Your task to perform on an android device: Go to Reddit.com Image 0: 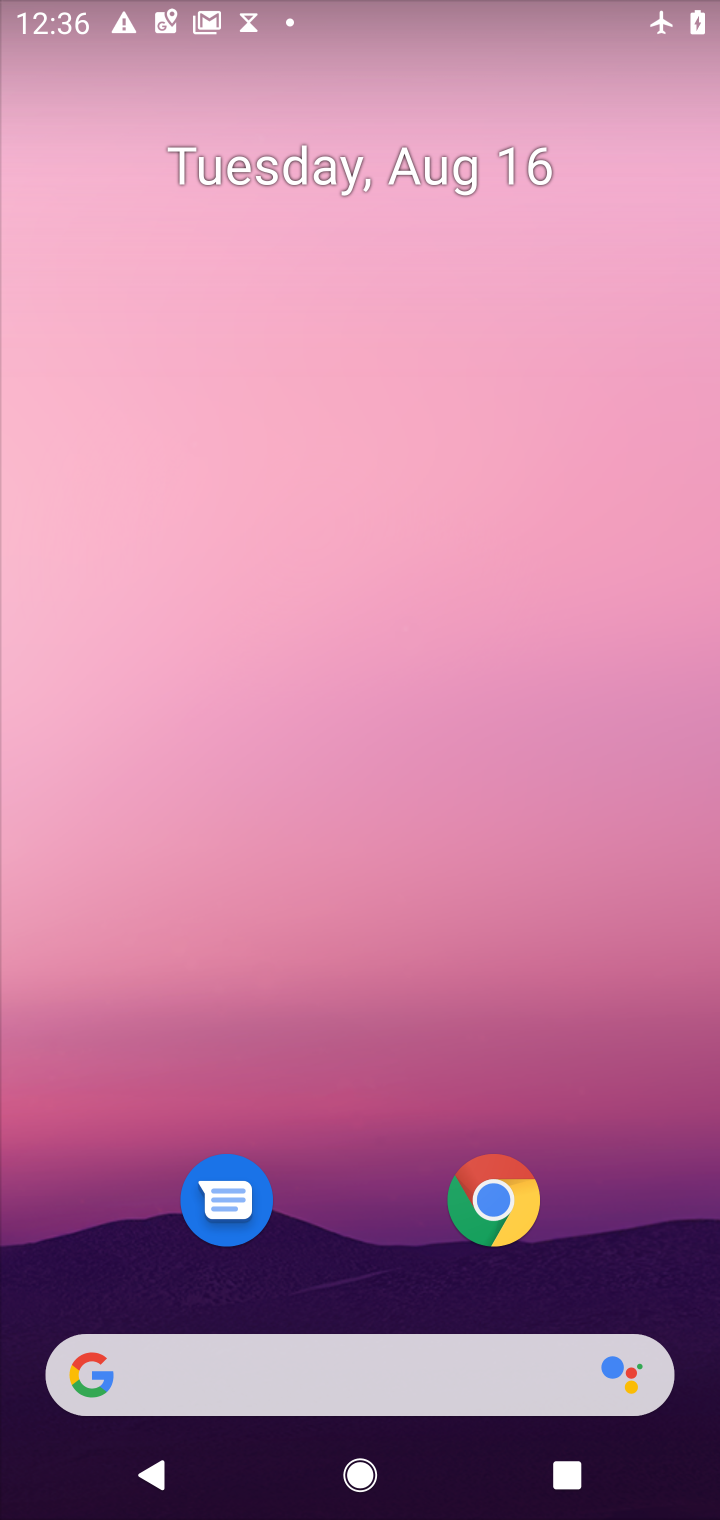
Step 0: click (467, 1181)
Your task to perform on an android device: Go to Reddit.com Image 1: 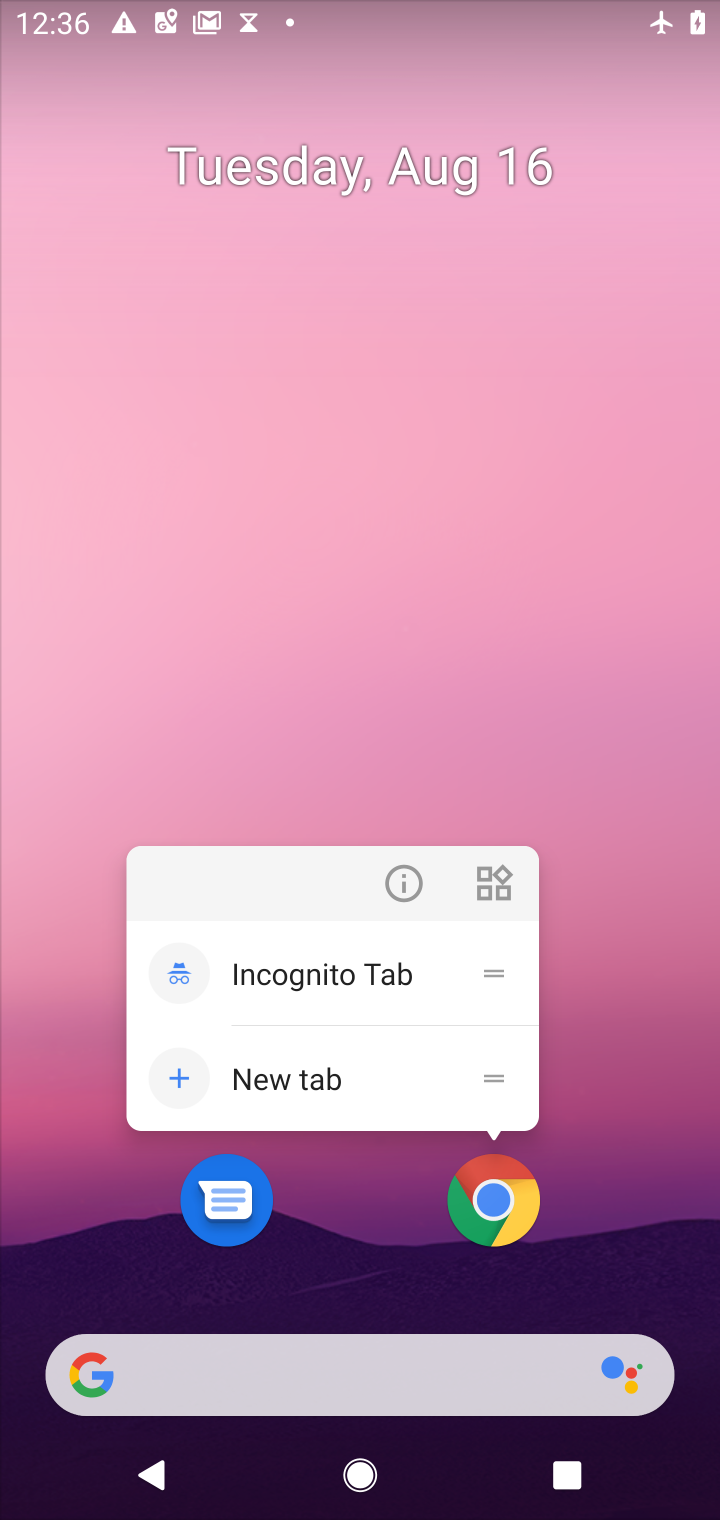
Step 1: click (502, 1194)
Your task to perform on an android device: Go to Reddit.com Image 2: 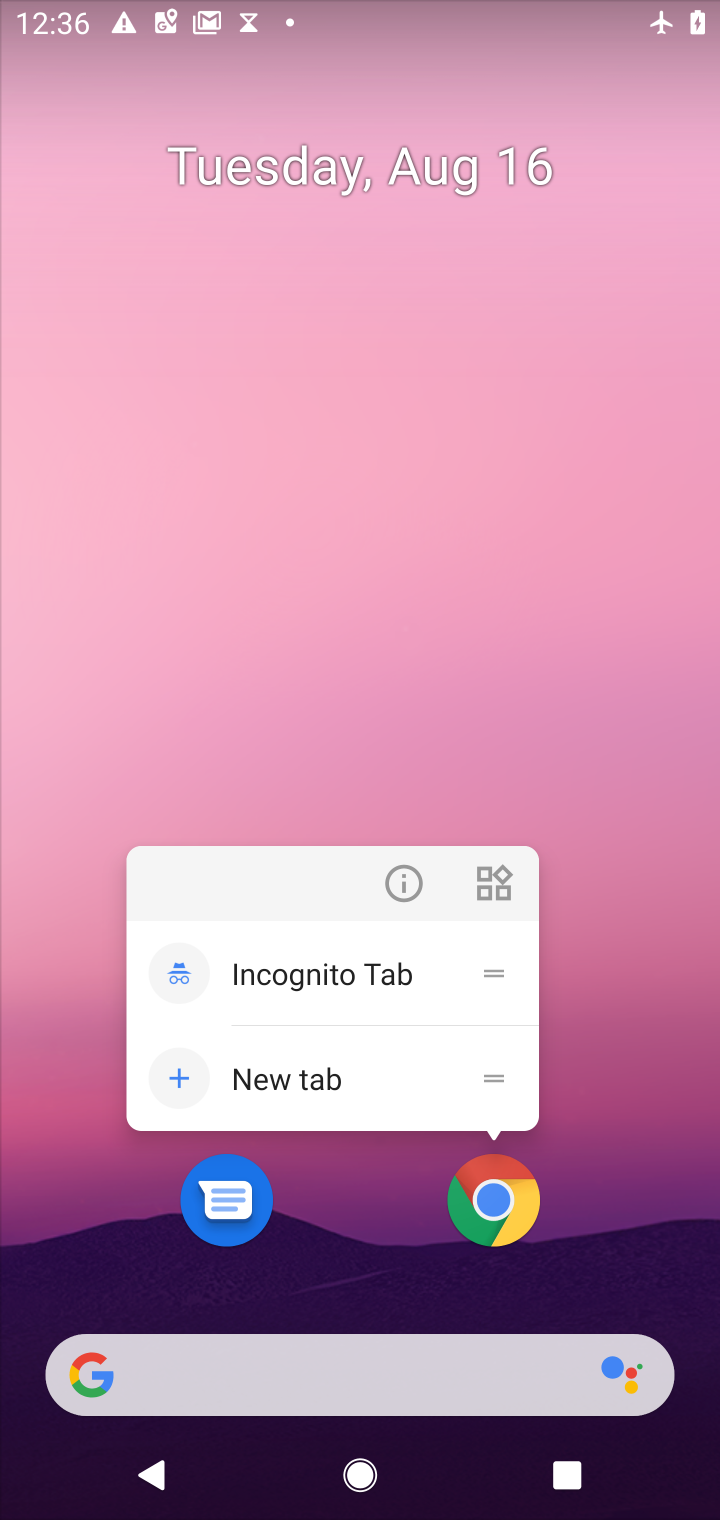
Step 2: click (502, 1194)
Your task to perform on an android device: Go to Reddit.com Image 3: 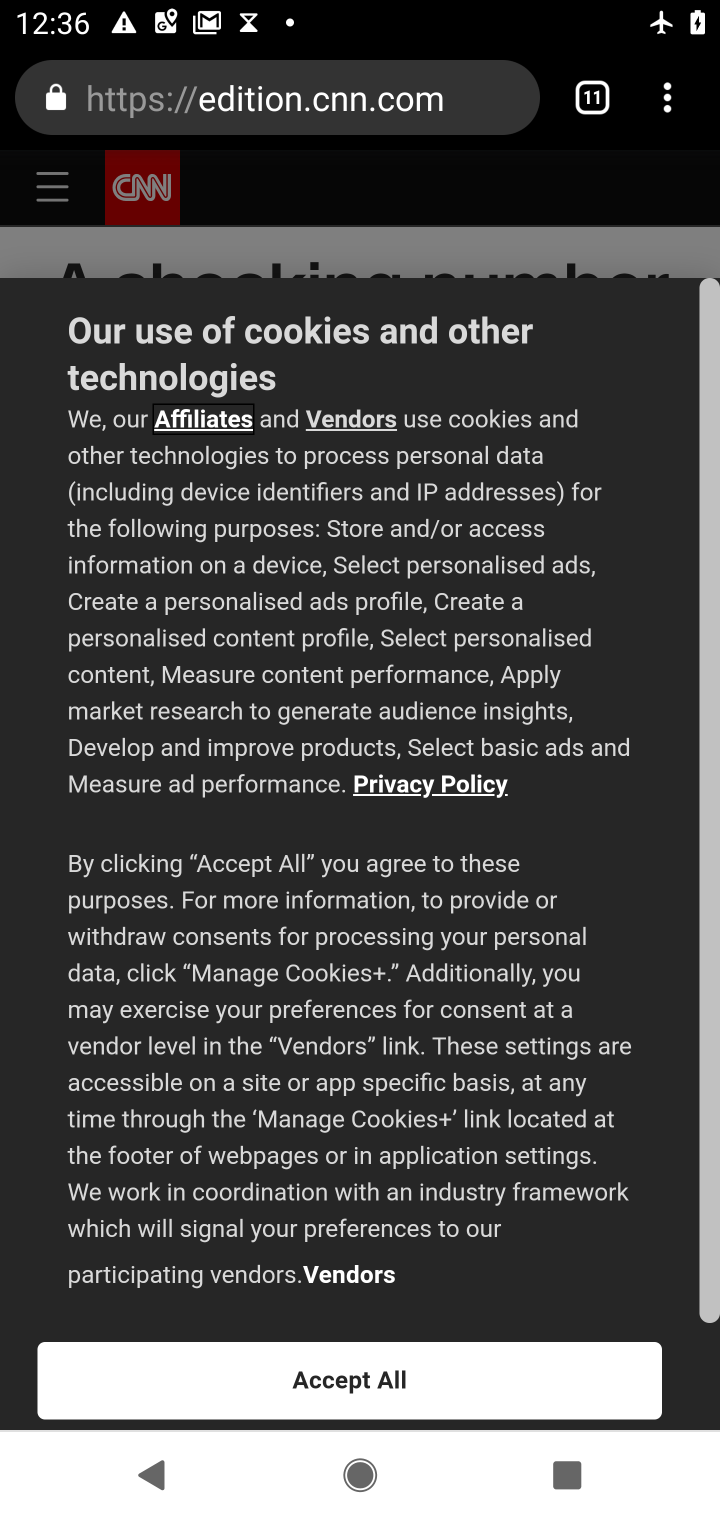
Step 3: click (586, 108)
Your task to perform on an android device: Go to Reddit.com Image 4: 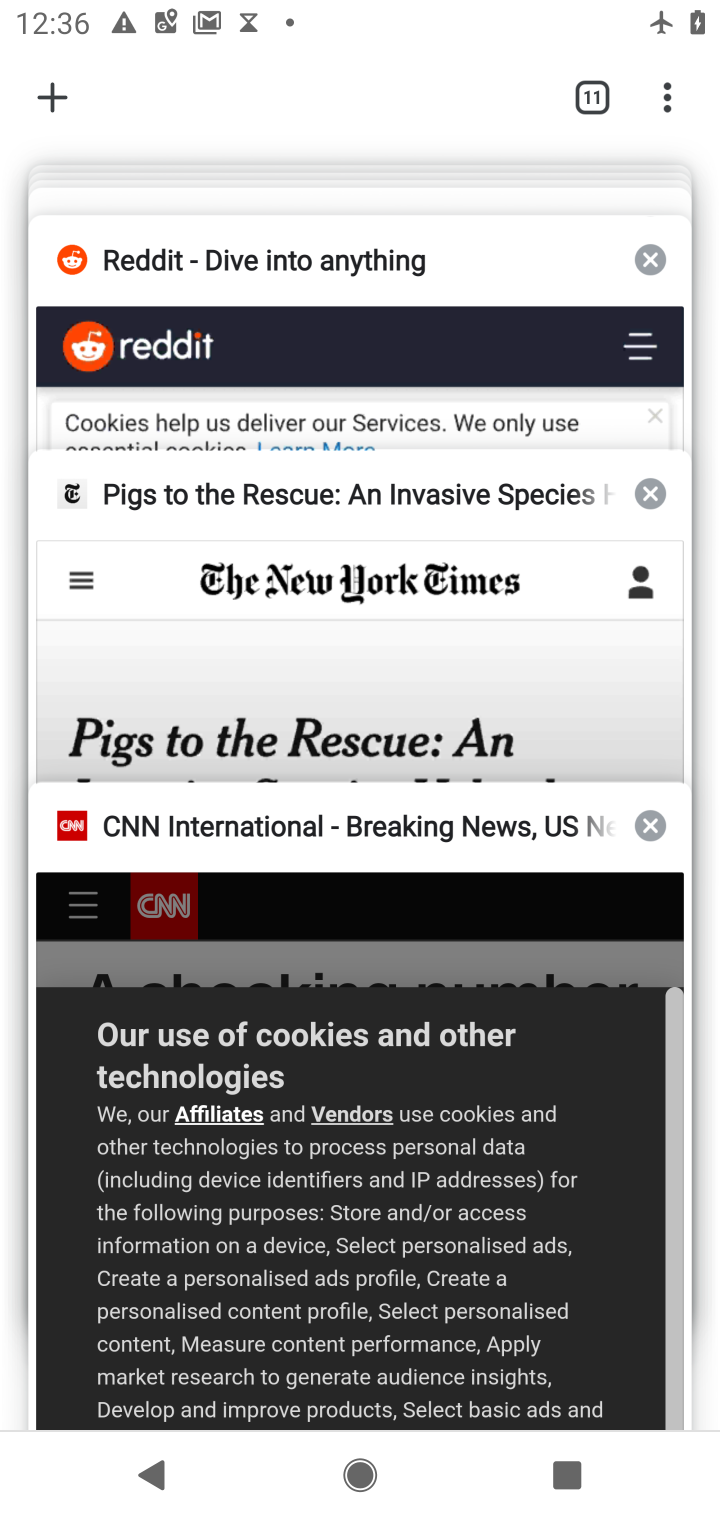
Step 4: click (50, 85)
Your task to perform on an android device: Go to Reddit.com Image 5: 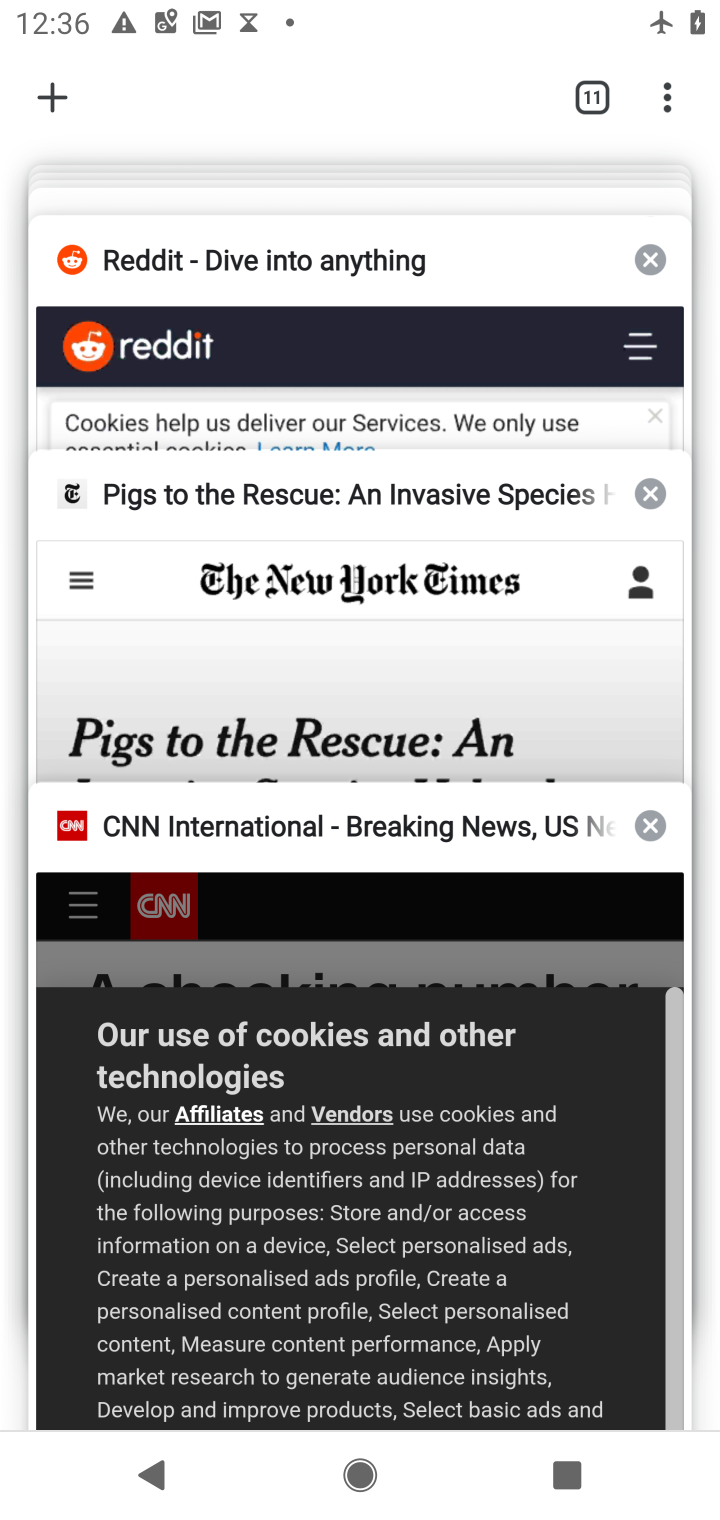
Step 5: click (48, 95)
Your task to perform on an android device: Go to Reddit.com Image 6: 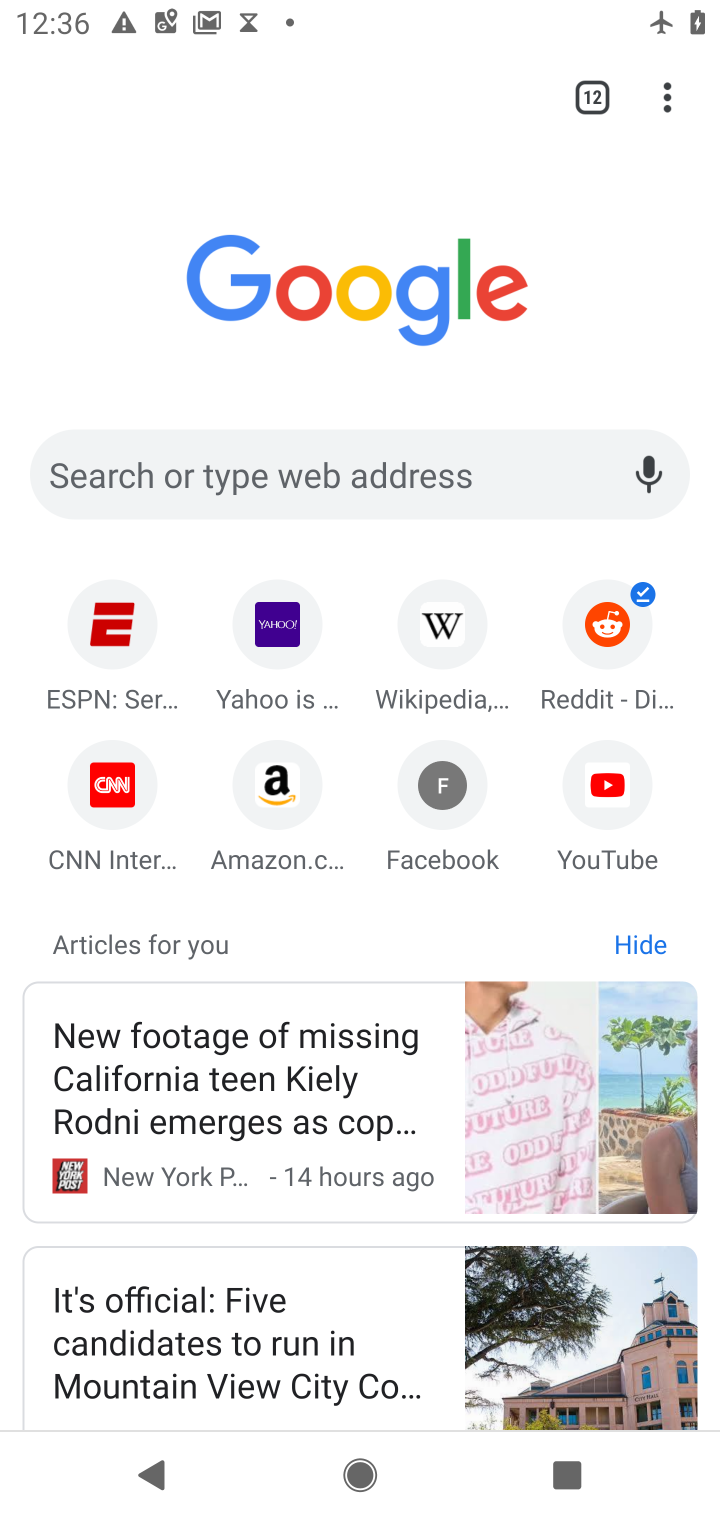
Step 6: click (211, 461)
Your task to perform on an android device: Go to Reddit.com Image 7: 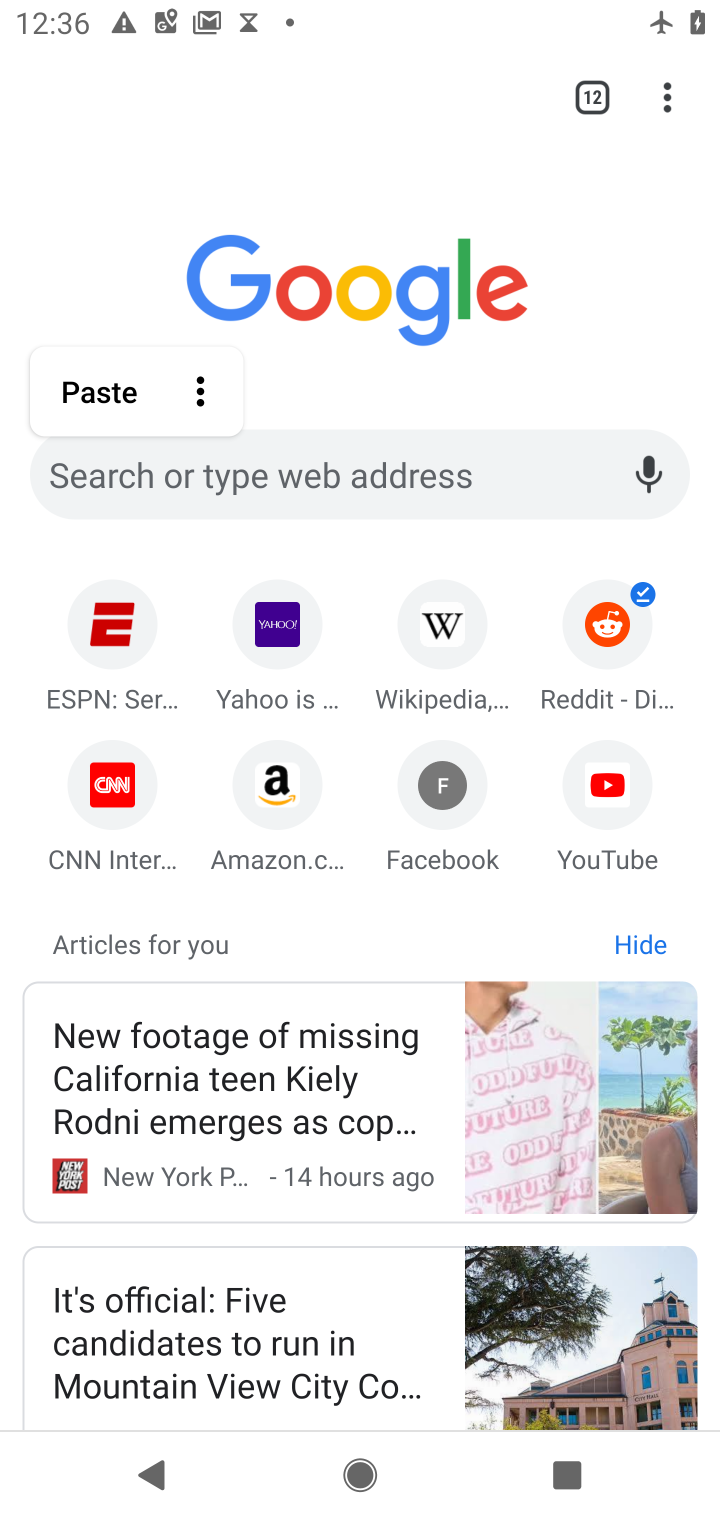
Step 7: type "Reddit.com"
Your task to perform on an android device: Go to Reddit.com Image 8: 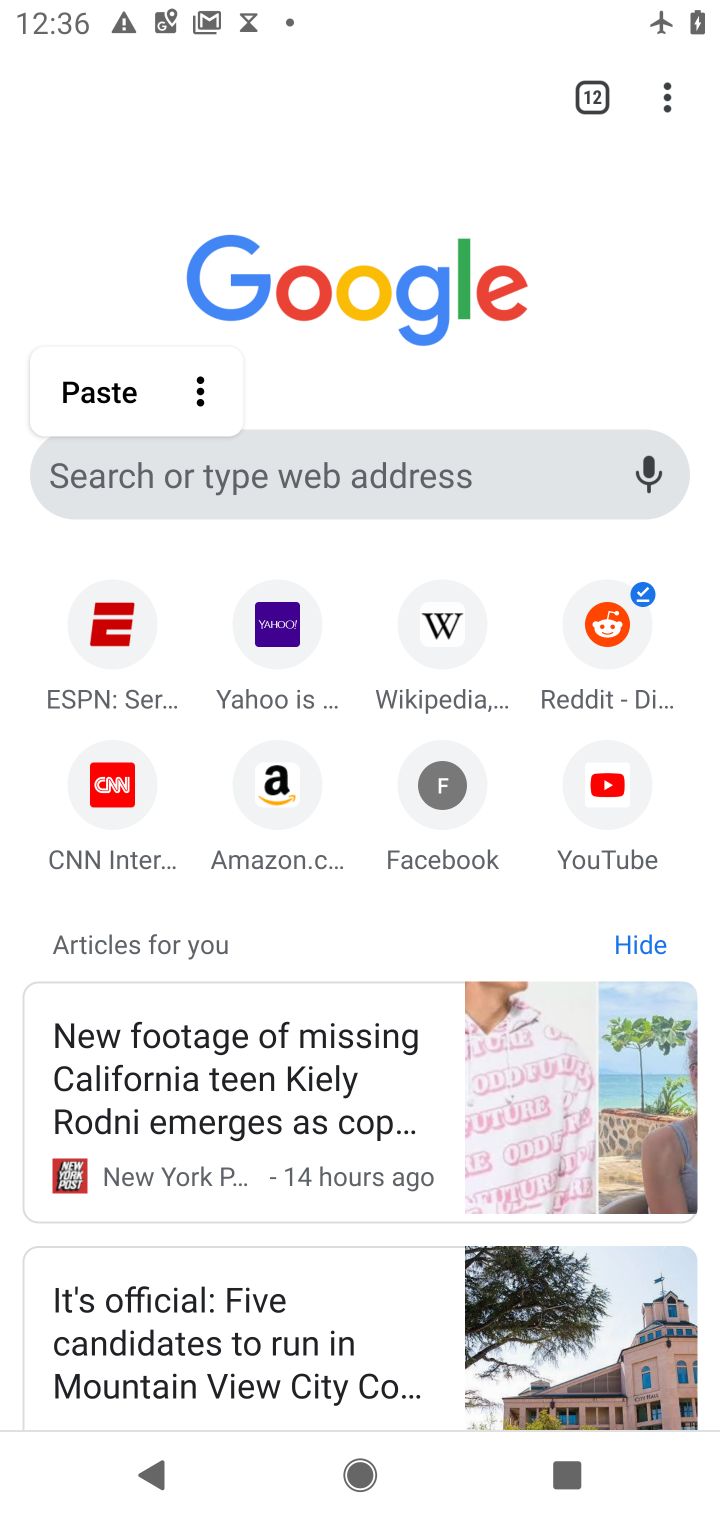
Step 8: type ""
Your task to perform on an android device: Go to Reddit.com Image 9: 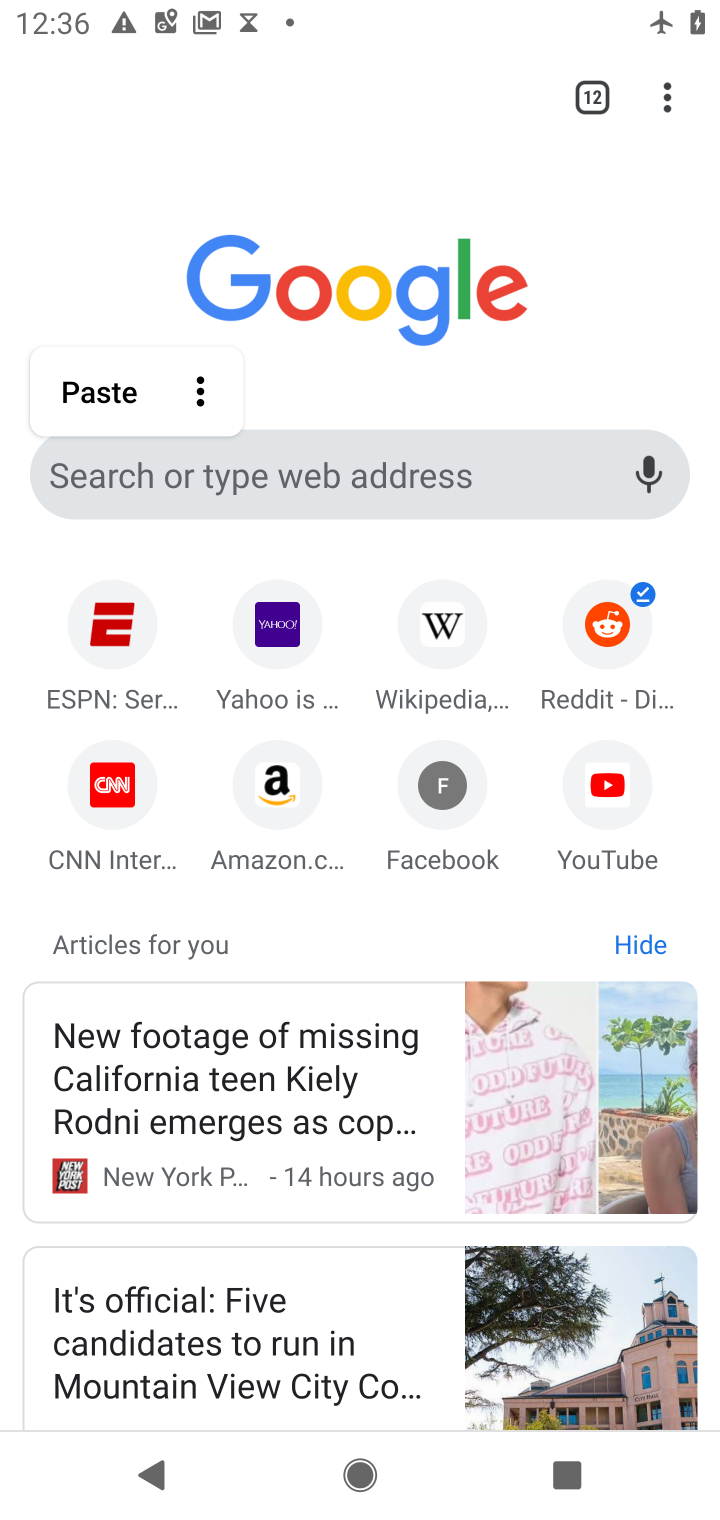
Step 9: click (351, 490)
Your task to perform on an android device: Go to Reddit.com Image 10: 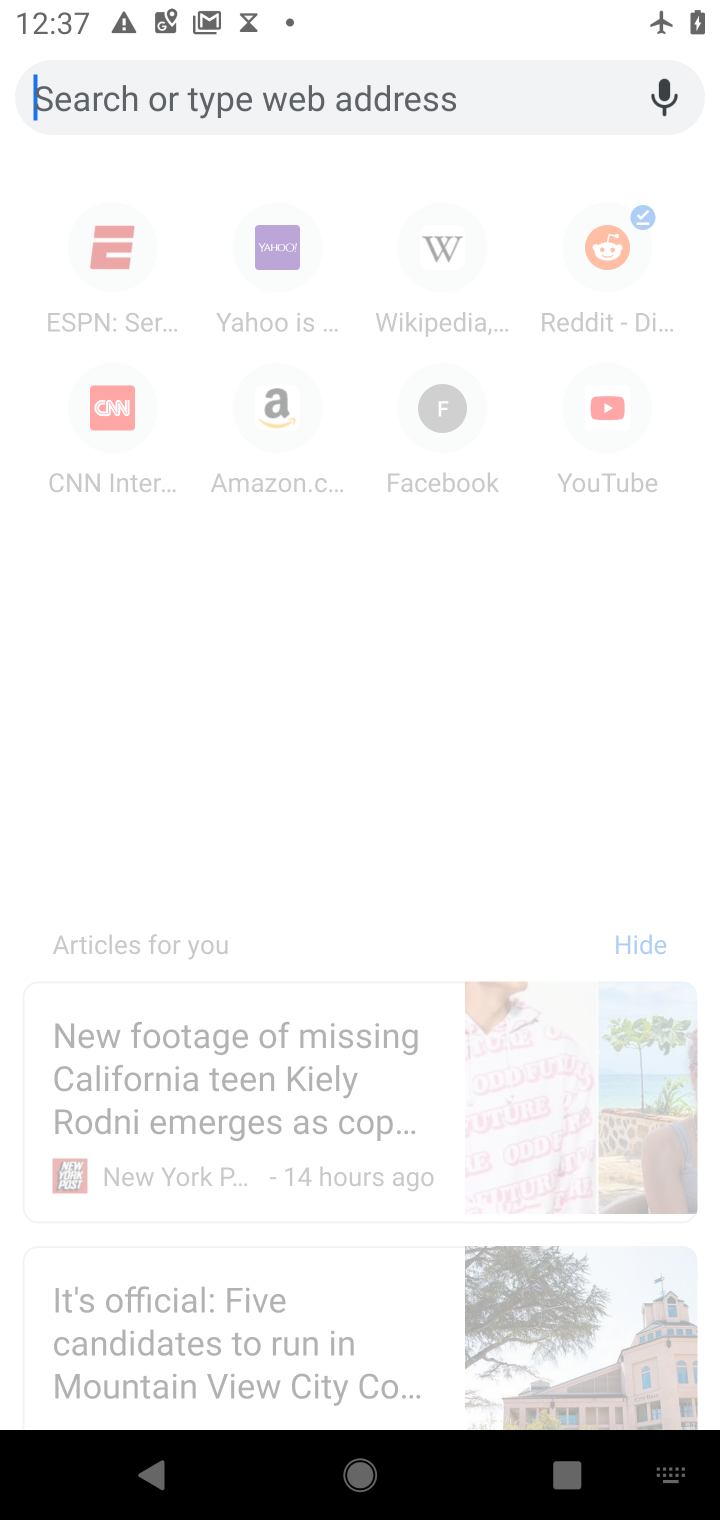
Step 10: type "Reddit.com"
Your task to perform on an android device: Go to Reddit.com Image 11: 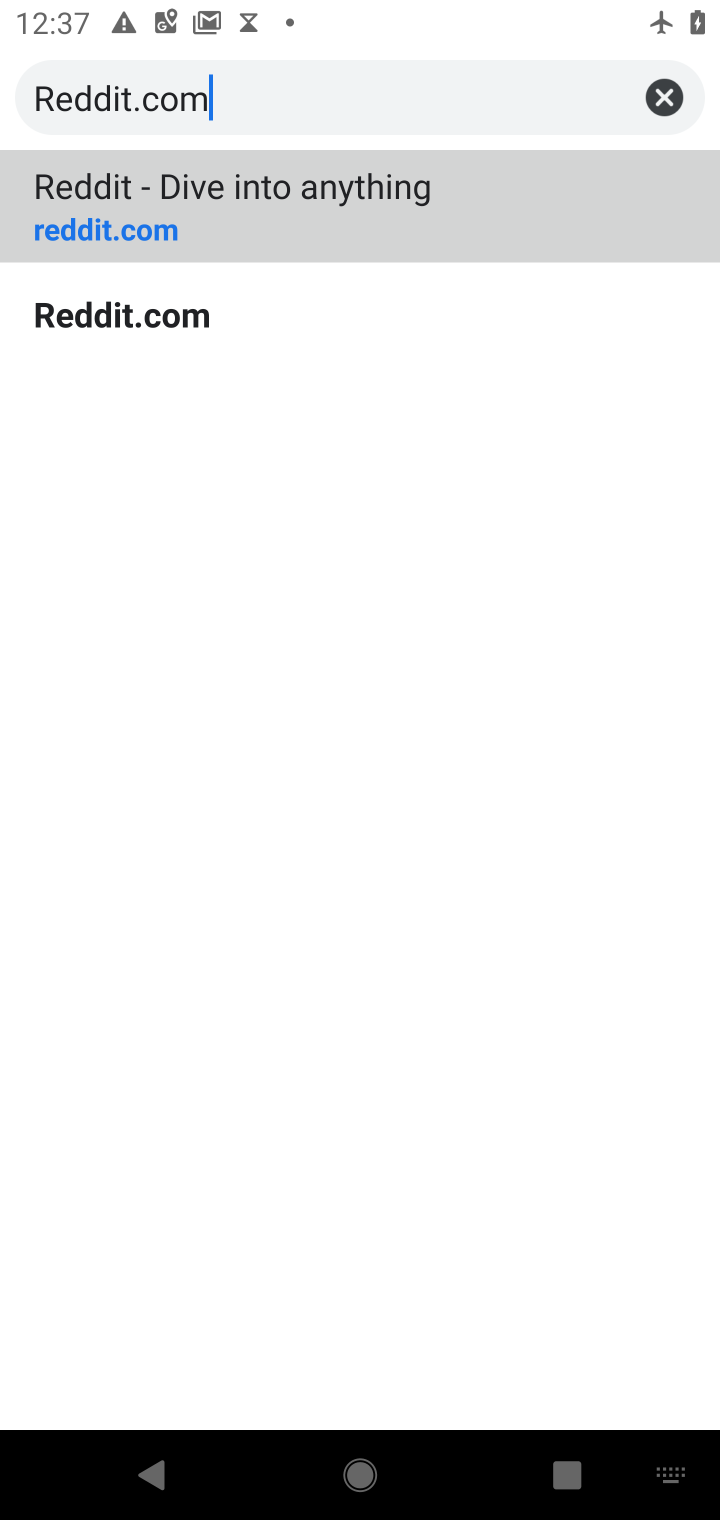
Step 11: type ""
Your task to perform on an android device: Go to Reddit.com Image 12: 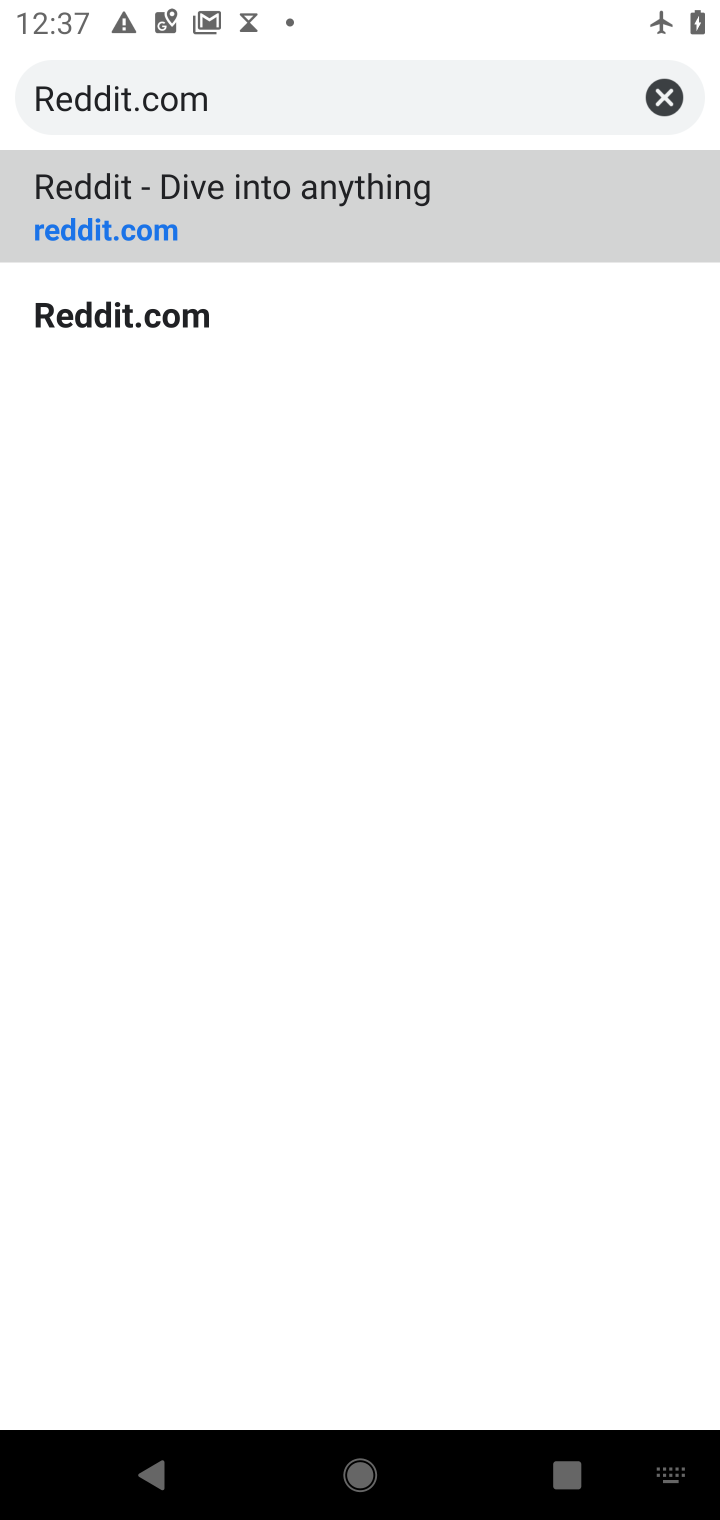
Step 12: click (237, 202)
Your task to perform on an android device: Go to Reddit.com Image 13: 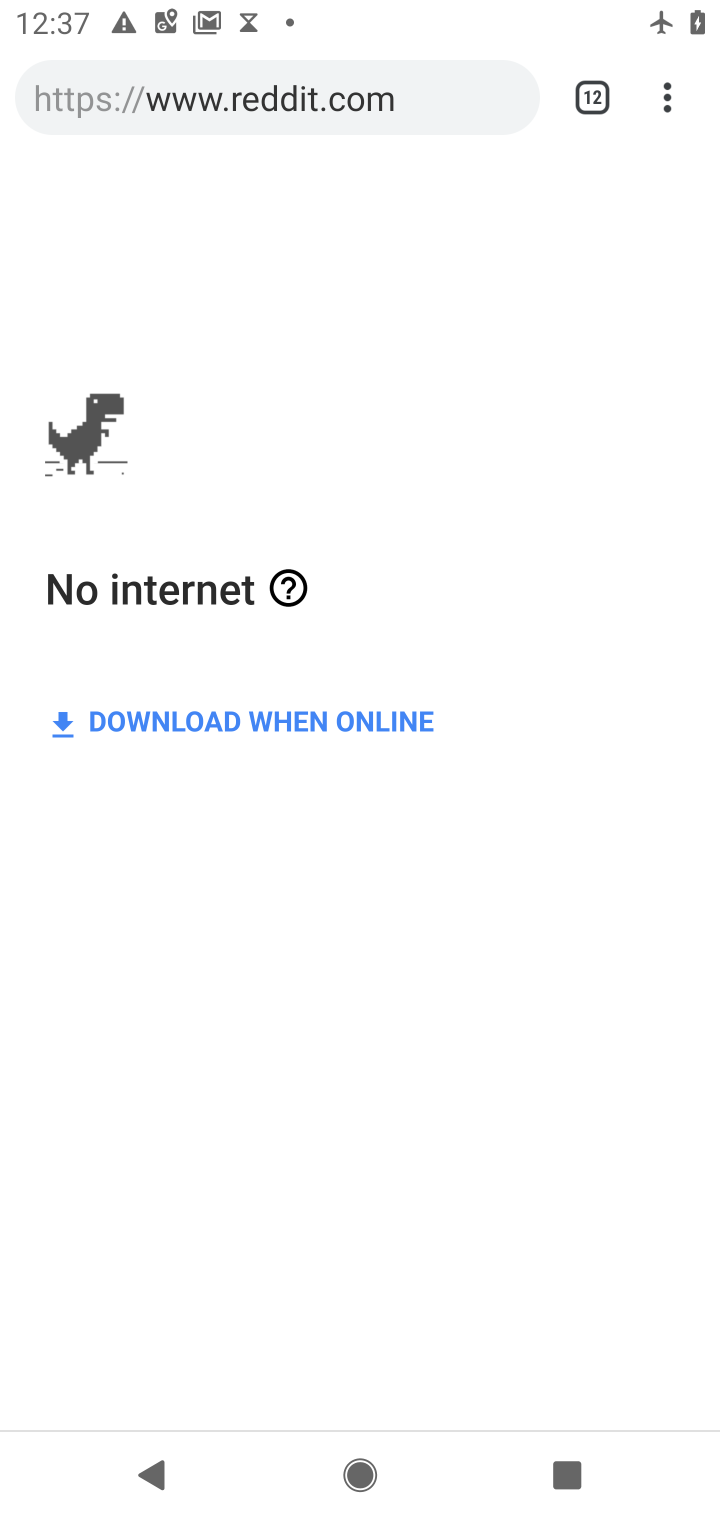
Step 13: task complete